Your task to perform on an android device: Go to location settings Image 0: 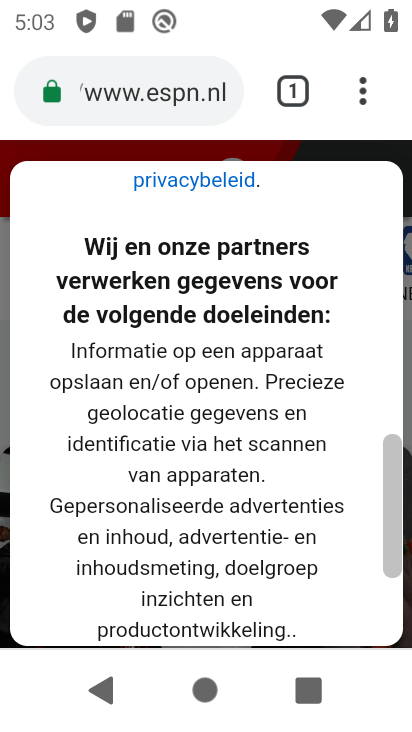
Step 0: press home button
Your task to perform on an android device: Go to location settings Image 1: 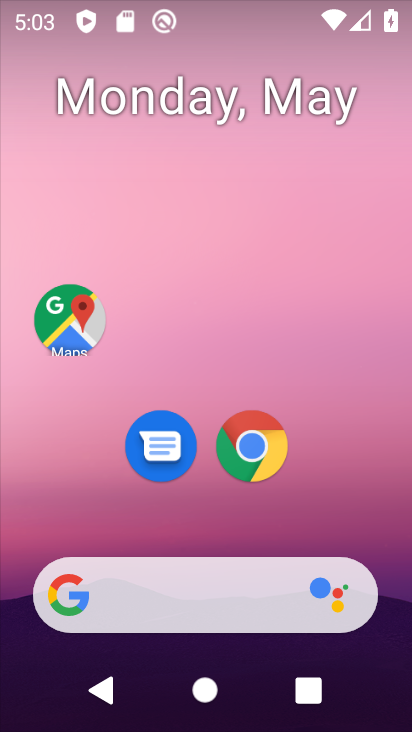
Step 1: drag from (350, 496) to (262, 113)
Your task to perform on an android device: Go to location settings Image 2: 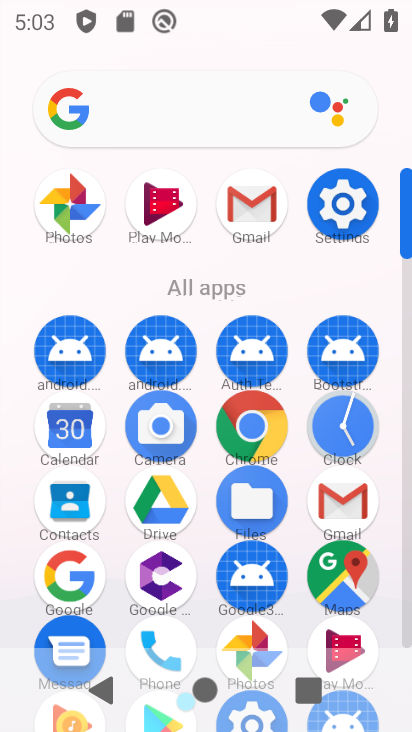
Step 2: click (333, 193)
Your task to perform on an android device: Go to location settings Image 3: 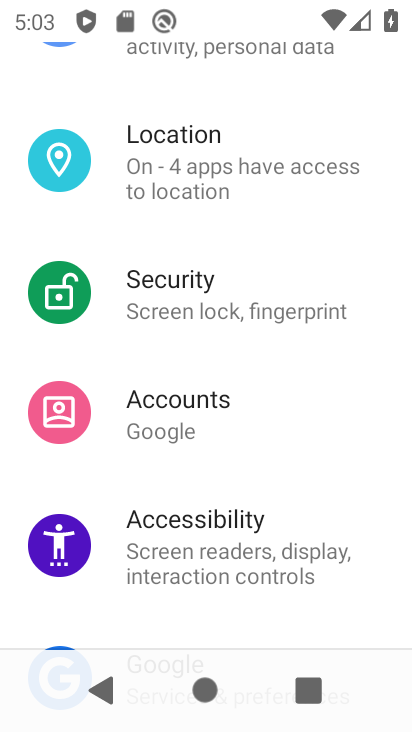
Step 3: click (182, 151)
Your task to perform on an android device: Go to location settings Image 4: 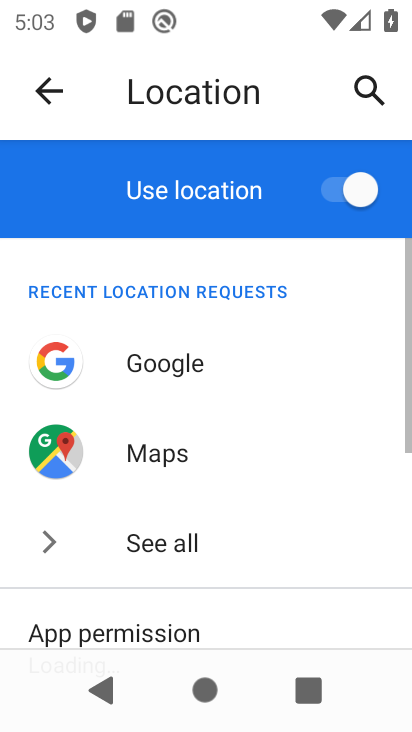
Step 4: task complete